Your task to perform on an android device: toggle translation in the chrome app Image 0: 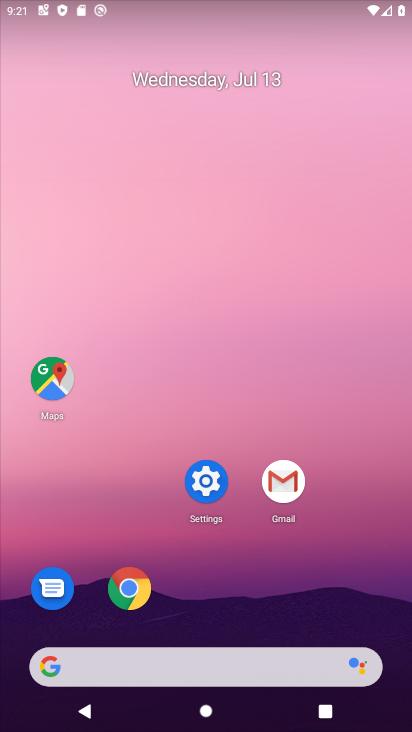
Step 0: click (133, 592)
Your task to perform on an android device: toggle translation in the chrome app Image 1: 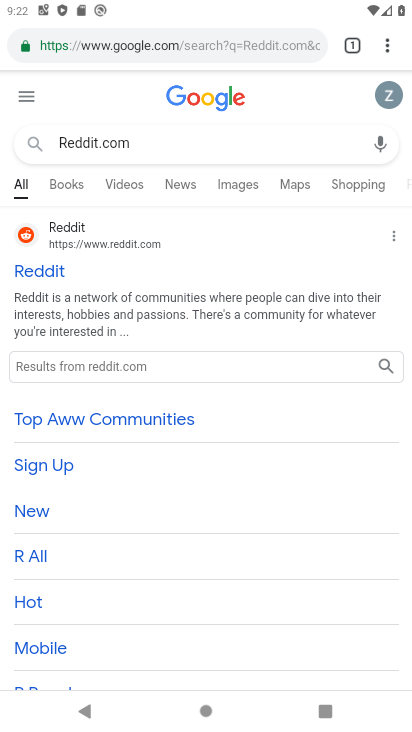
Step 1: click (391, 38)
Your task to perform on an android device: toggle translation in the chrome app Image 2: 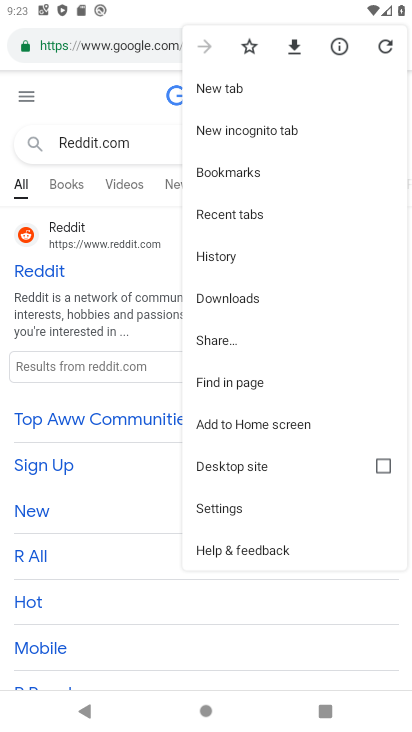
Step 2: click (216, 503)
Your task to perform on an android device: toggle translation in the chrome app Image 3: 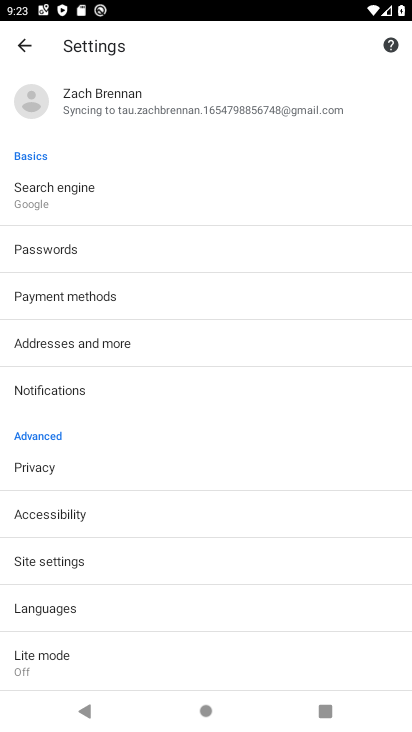
Step 3: click (33, 615)
Your task to perform on an android device: toggle translation in the chrome app Image 4: 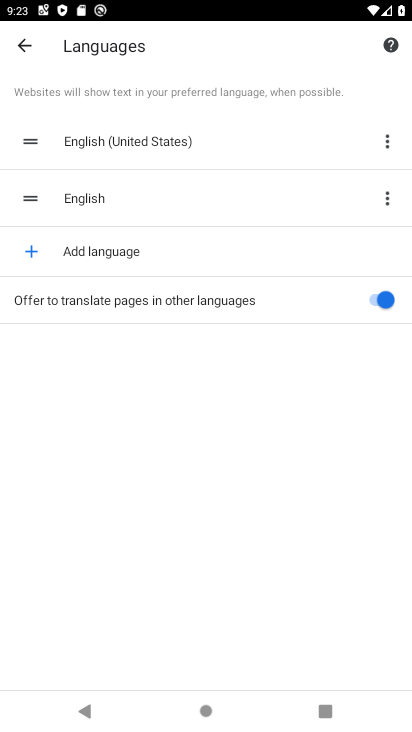
Step 4: click (371, 301)
Your task to perform on an android device: toggle translation in the chrome app Image 5: 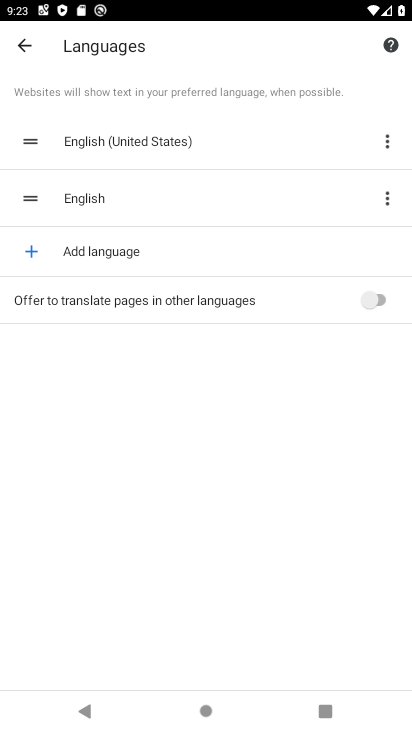
Step 5: task complete